Your task to perform on an android device: set the timer Image 0: 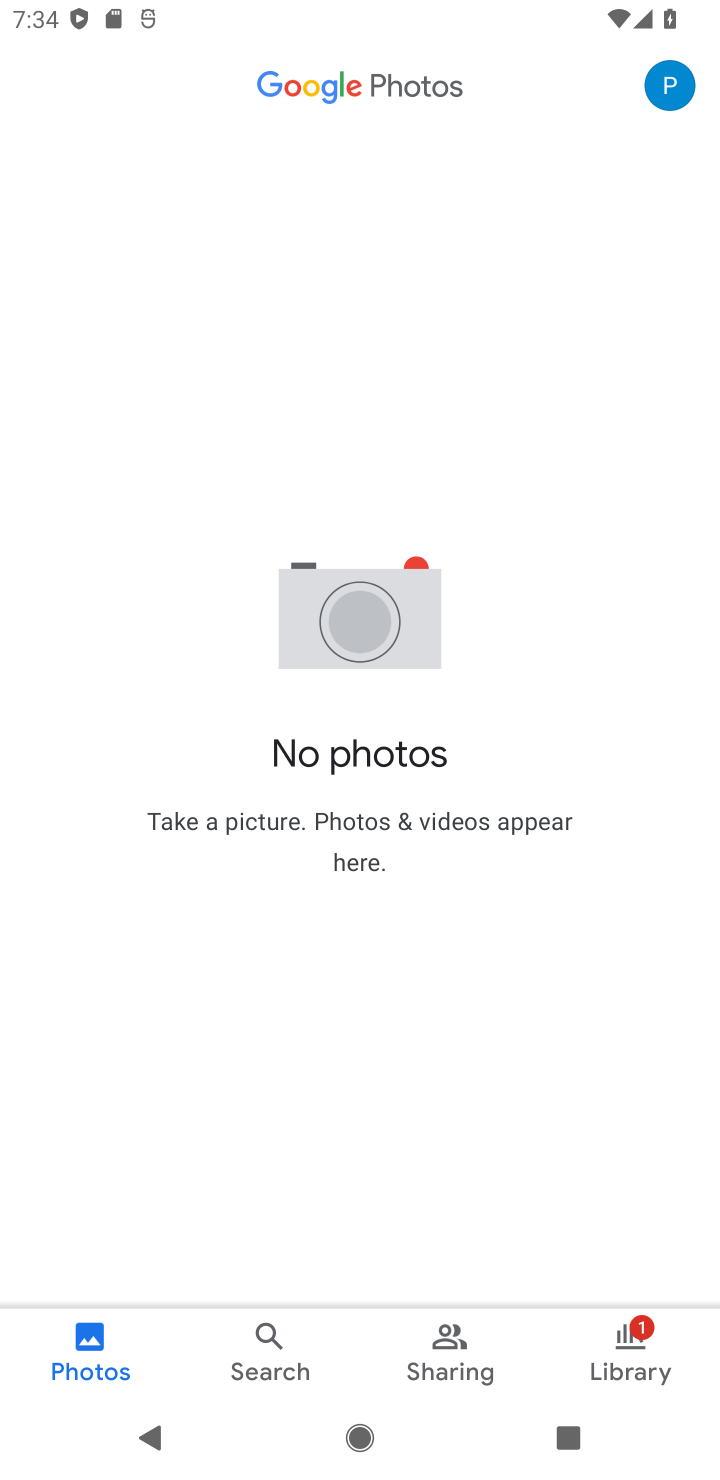
Step 0: press home button
Your task to perform on an android device: set the timer Image 1: 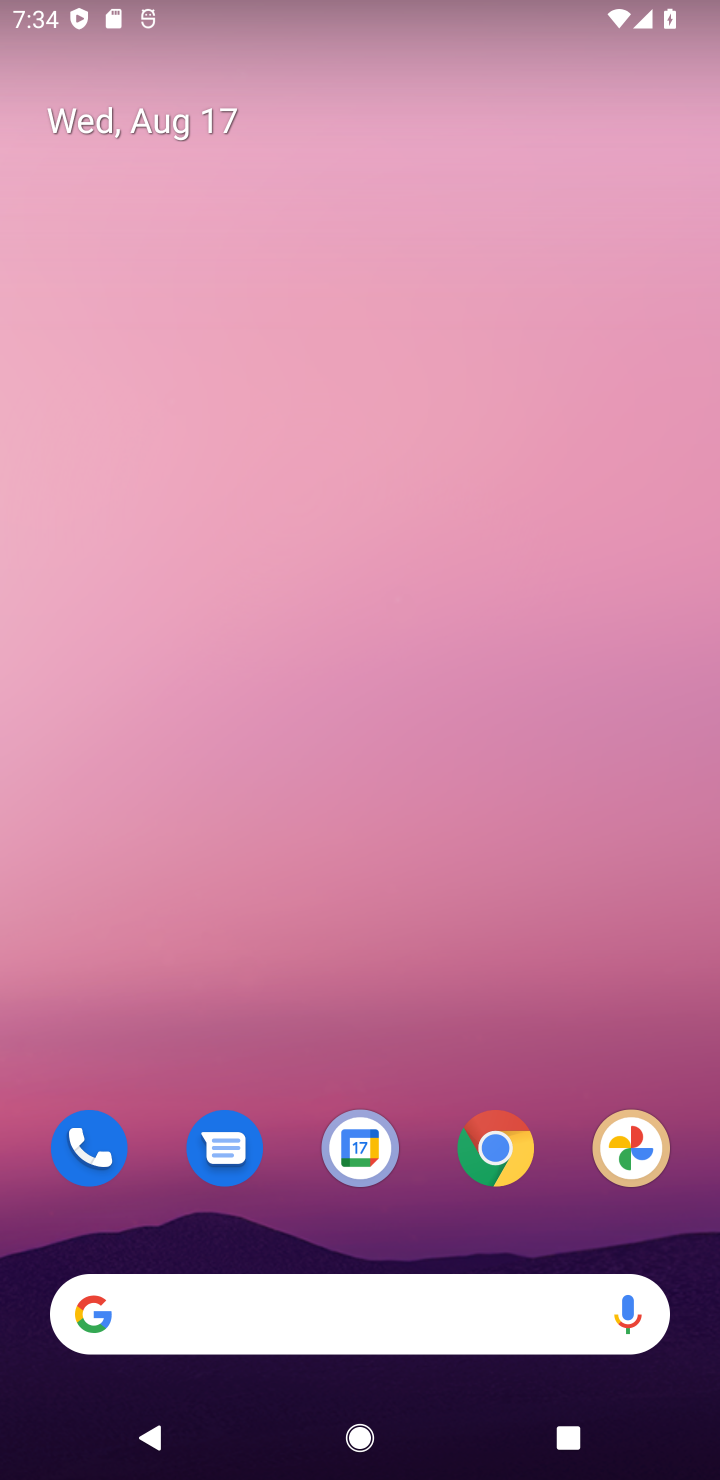
Step 1: drag from (558, 1245) to (521, 54)
Your task to perform on an android device: set the timer Image 2: 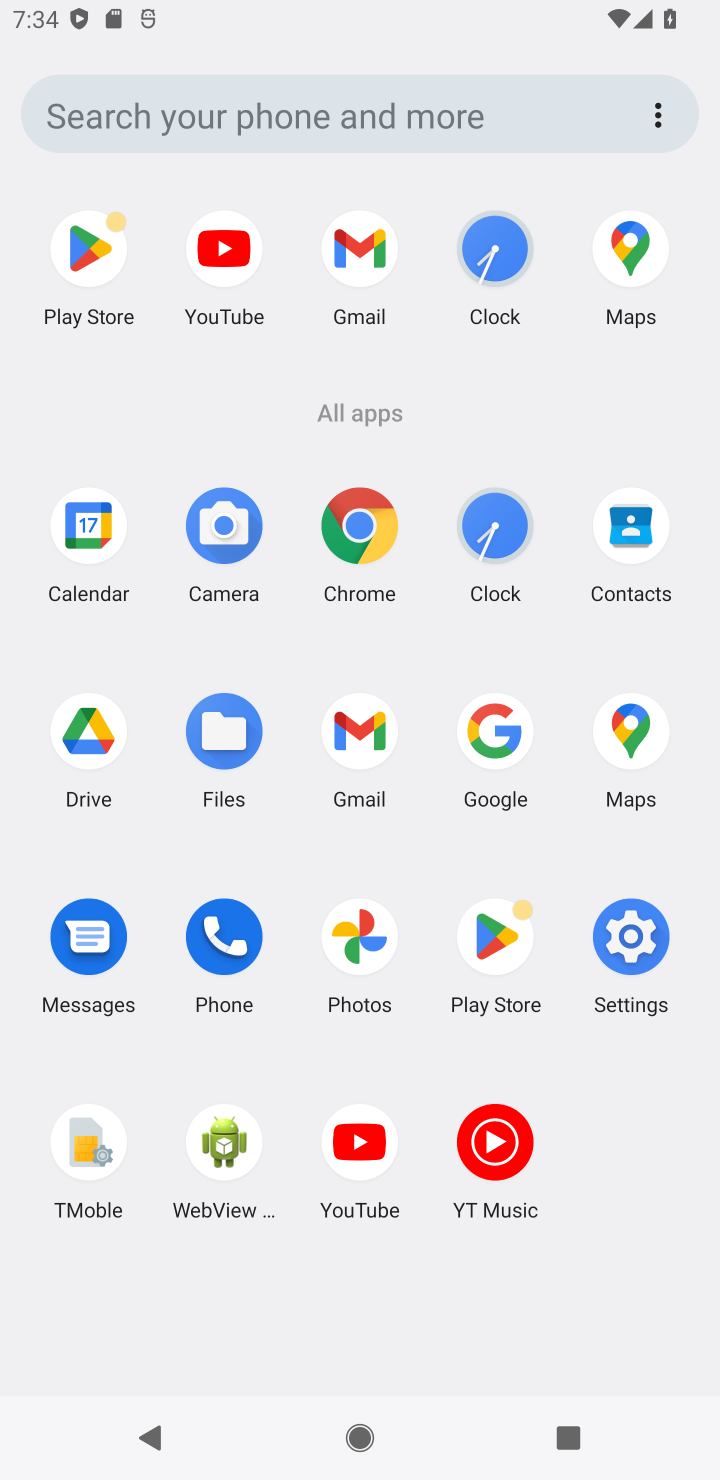
Step 2: click (496, 522)
Your task to perform on an android device: set the timer Image 3: 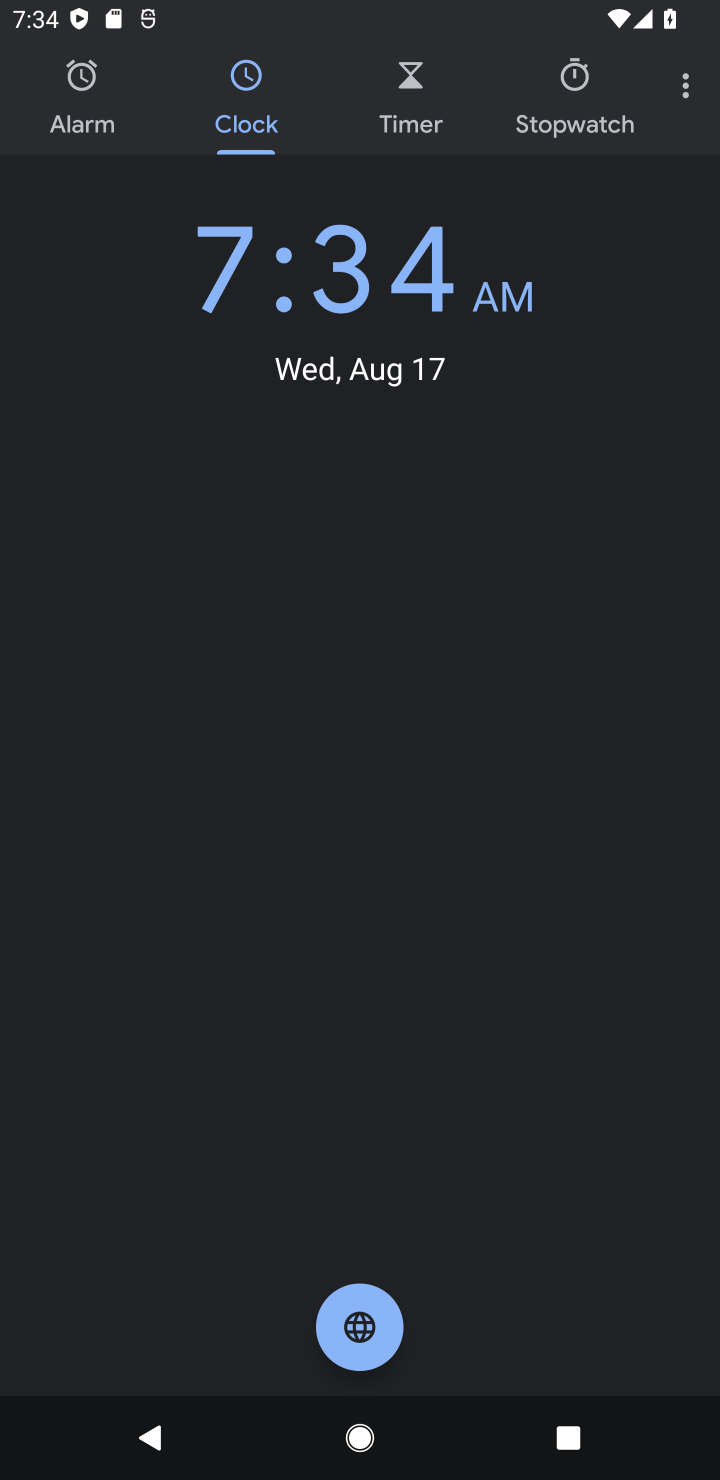
Step 3: click (414, 94)
Your task to perform on an android device: set the timer Image 4: 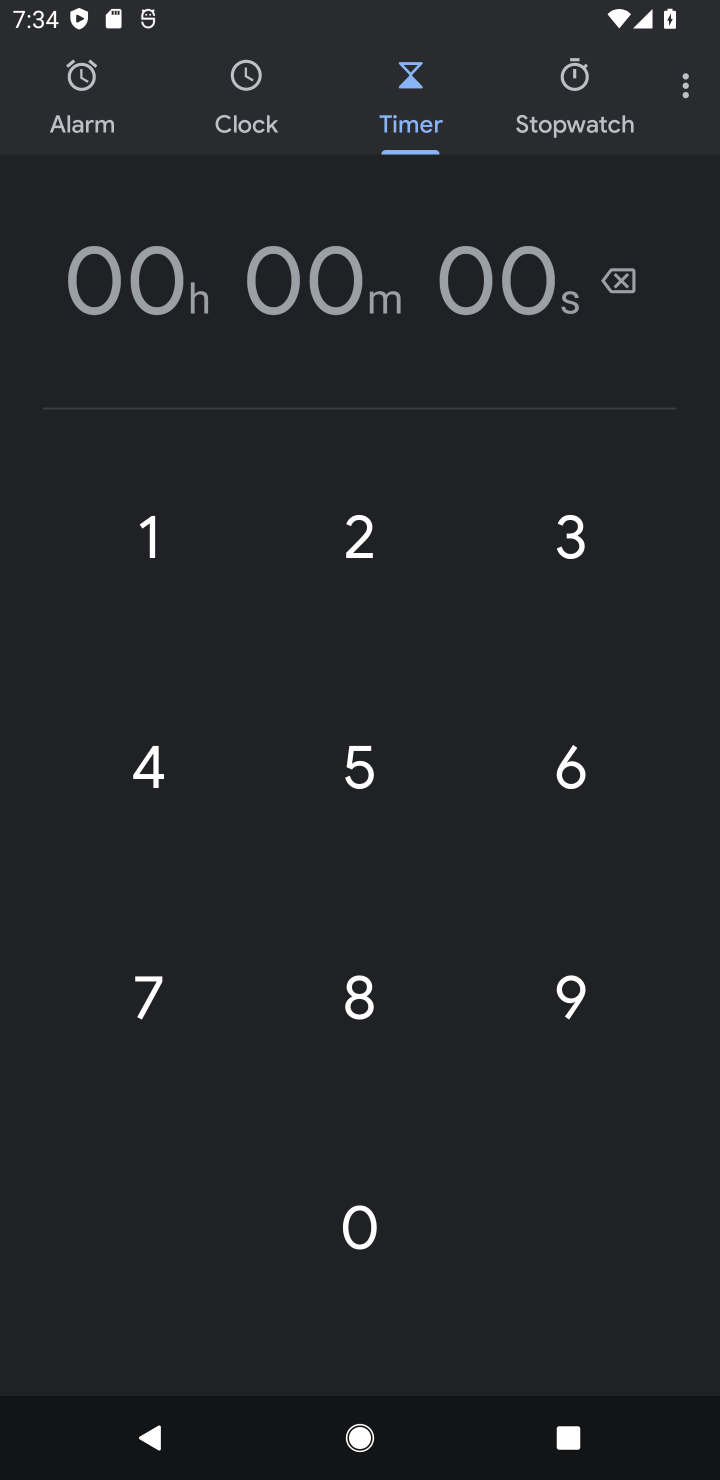
Step 4: click (153, 524)
Your task to perform on an android device: set the timer Image 5: 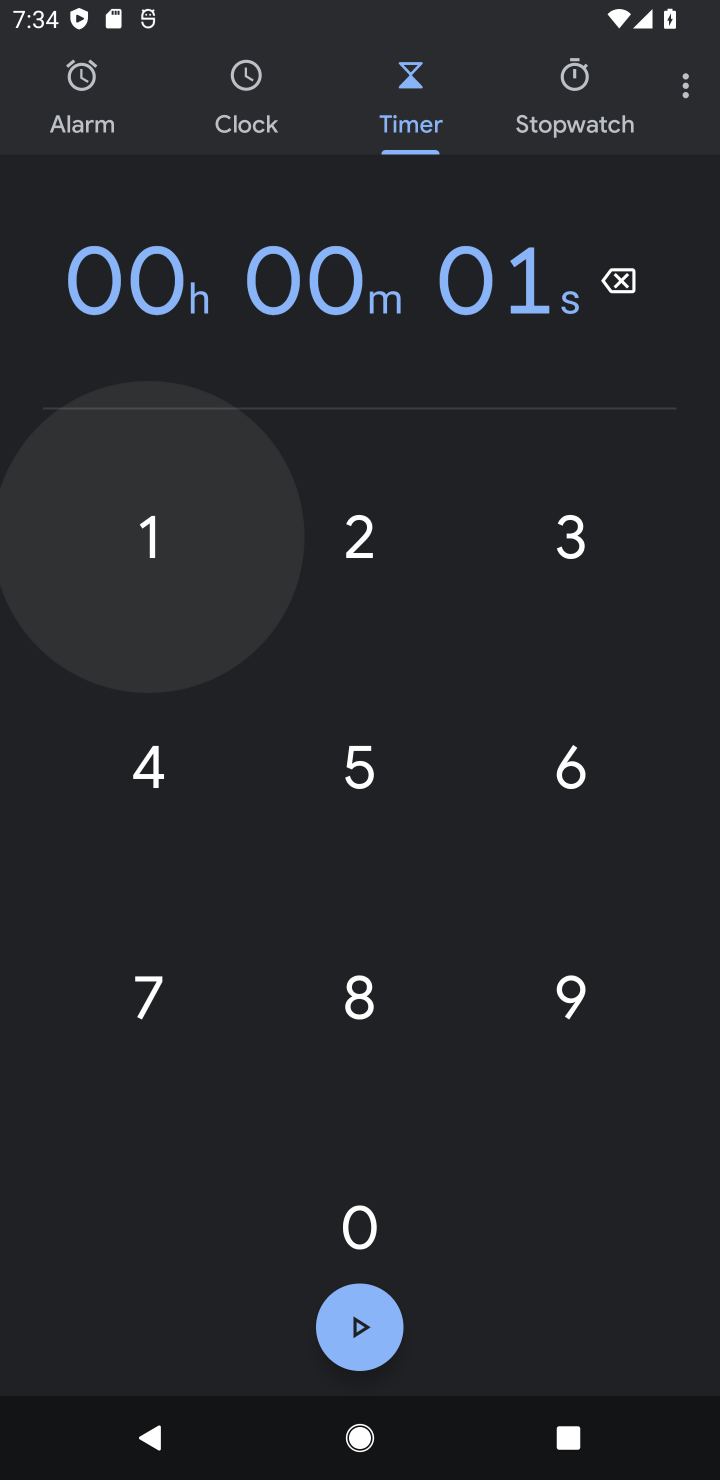
Step 5: click (592, 544)
Your task to perform on an android device: set the timer Image 6: 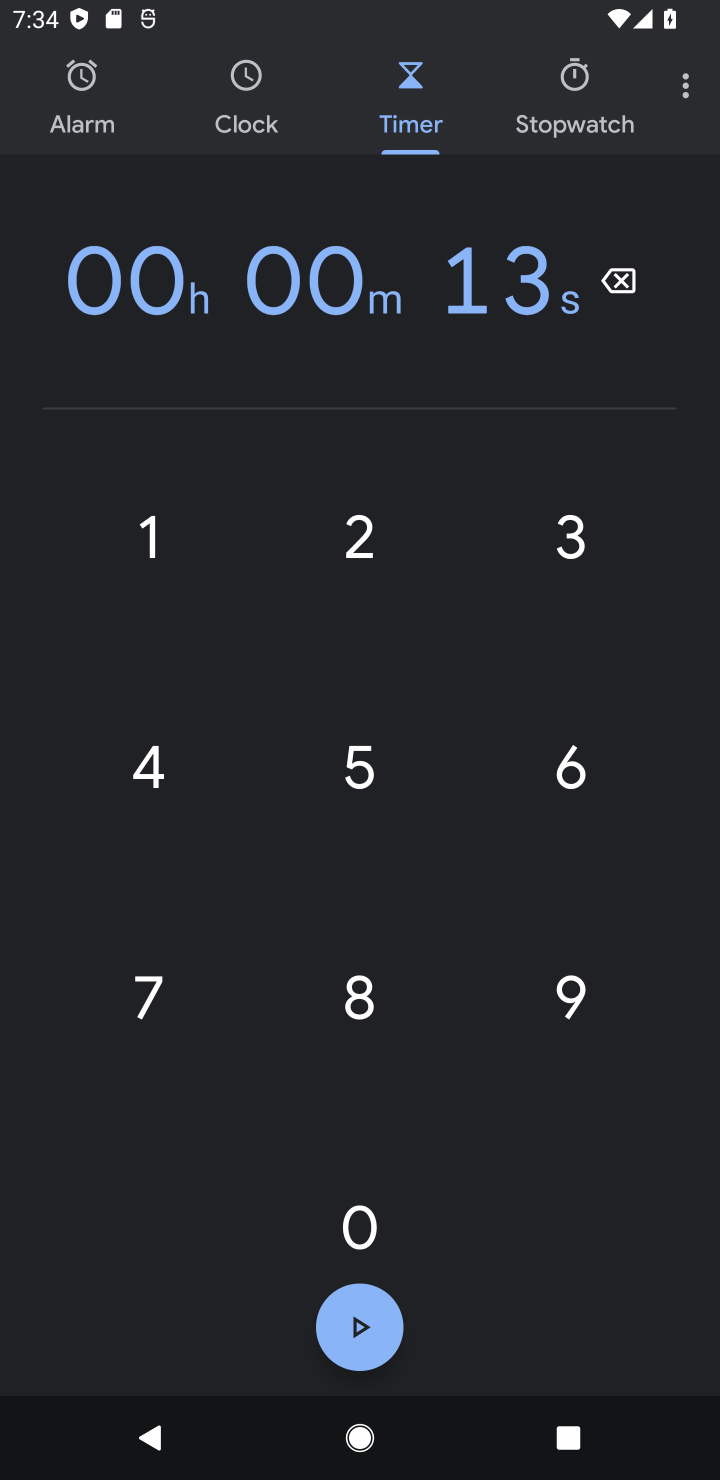
Step 6: click (363, 1230)
Your task to perform on an android device: set the timer Image 7: 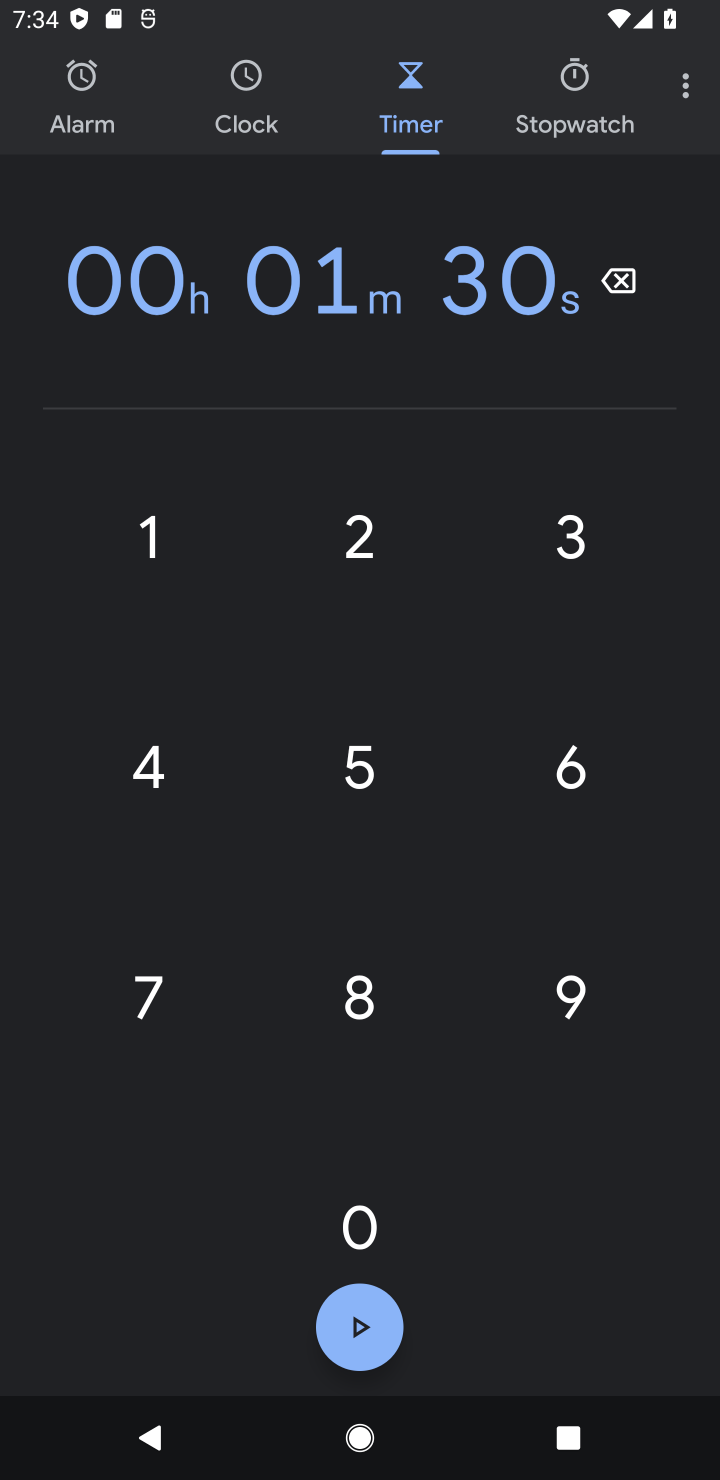
Step 7: click (363, 1230)
Your task to perform on an android device: set the timer Image 8: 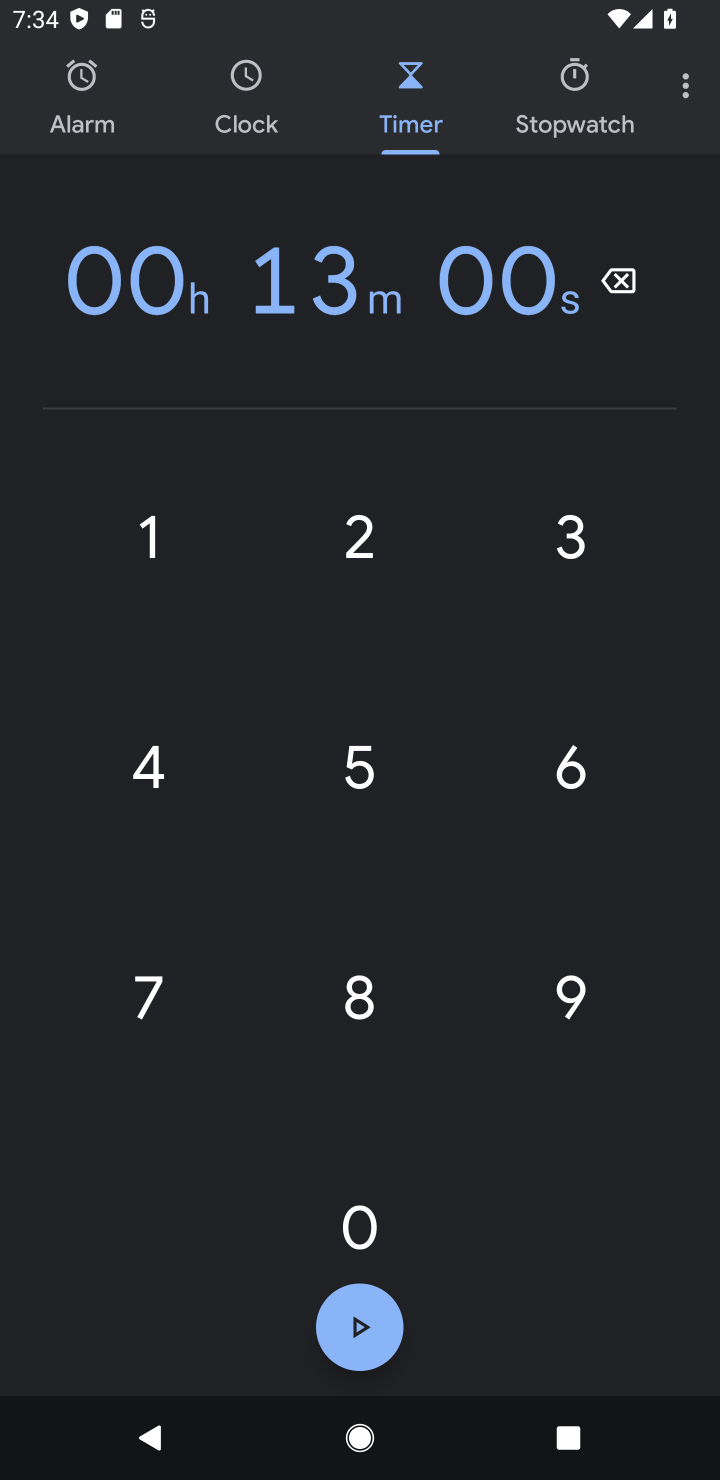
Step 8: click (363, 1230)
Your task to perform on an android device: set the timer Image 9: 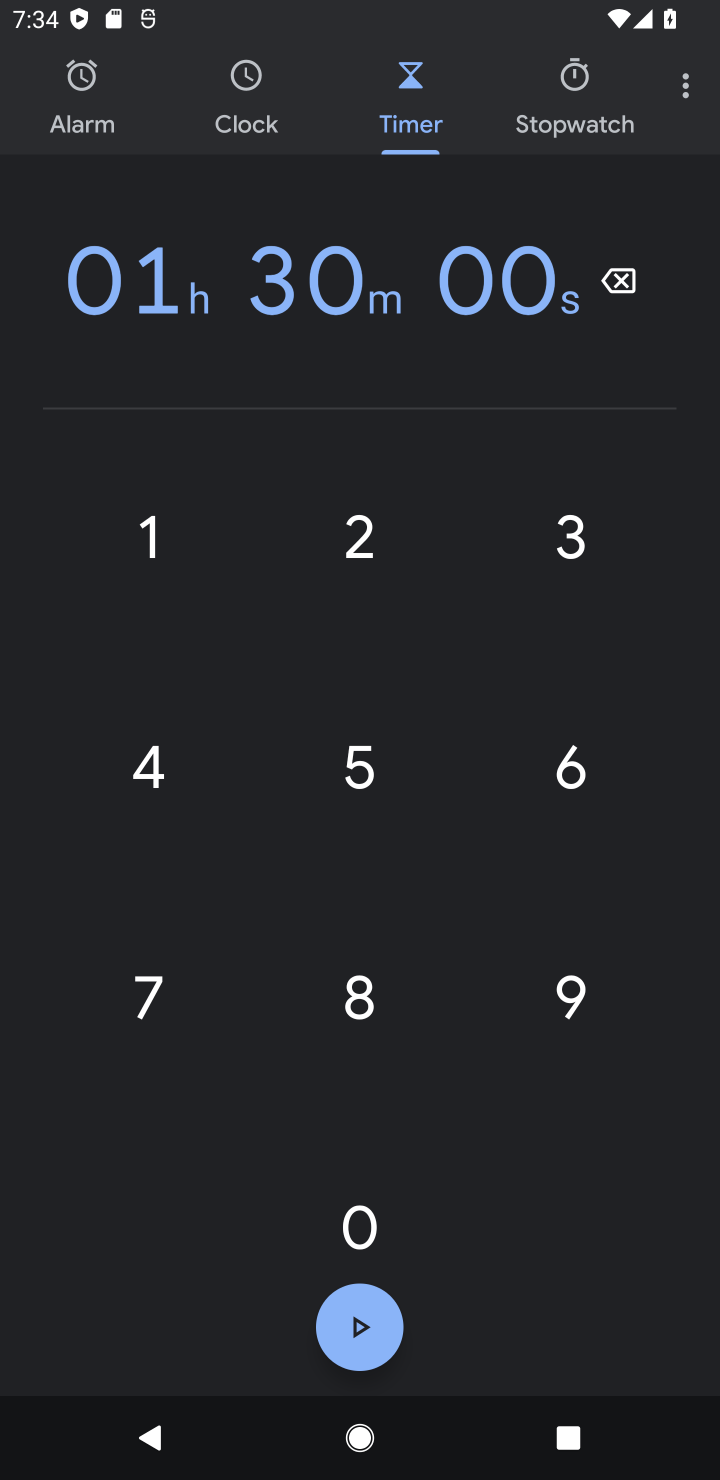
Step 9: task complete